Your task to perform on an android device: Open Wikipedia Image 0: 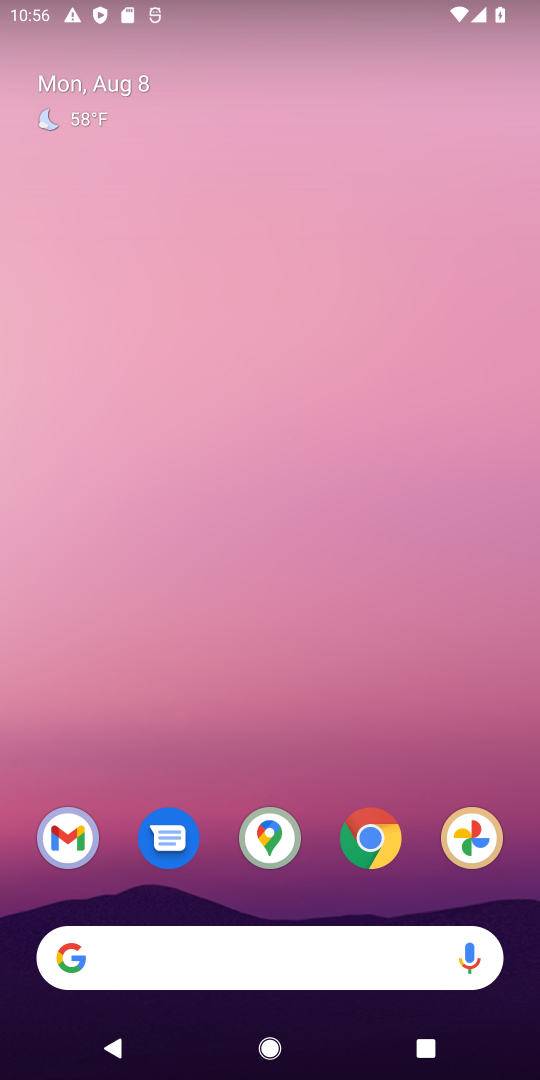
Step 0: press home button
Your task to perform on an android device: Open Wikipedia Image 1: 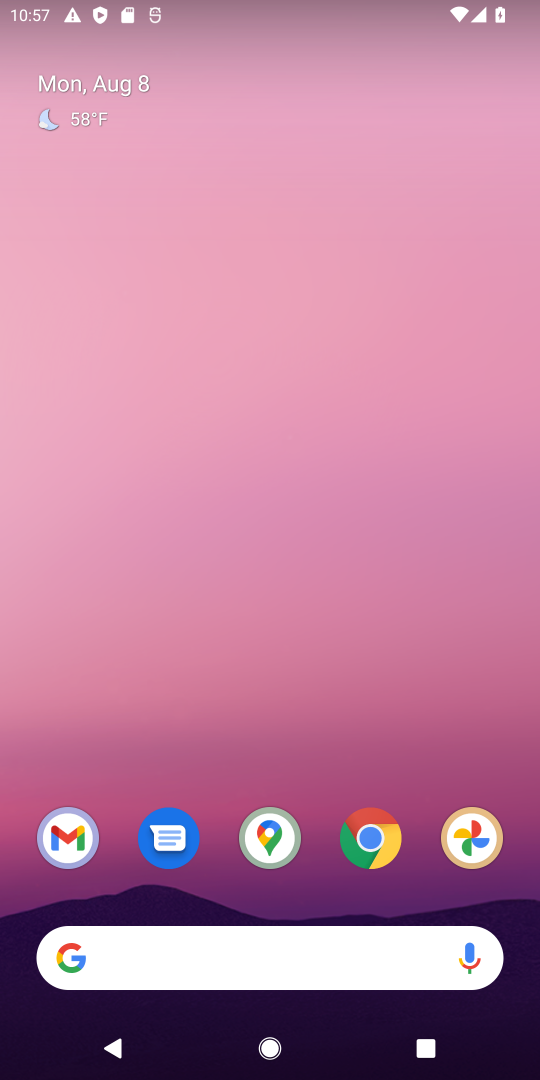
Step 1: click (71, 961)
Your task to perform on an android device: Open Wikipedia Image 2: 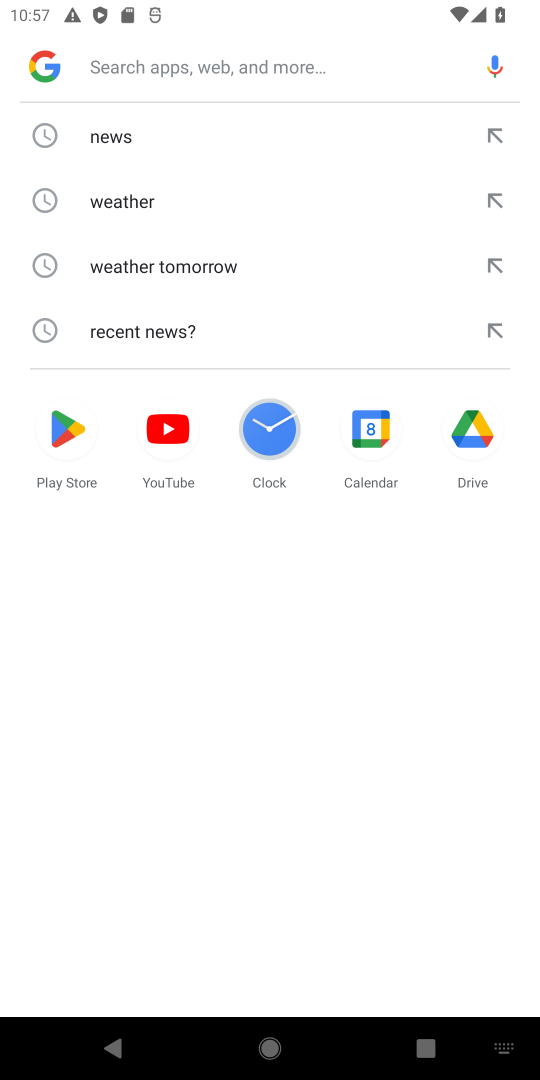
Step 2: type "Wikipedia"
Your task to perform on an android device: Open Wikipedia Image 3: 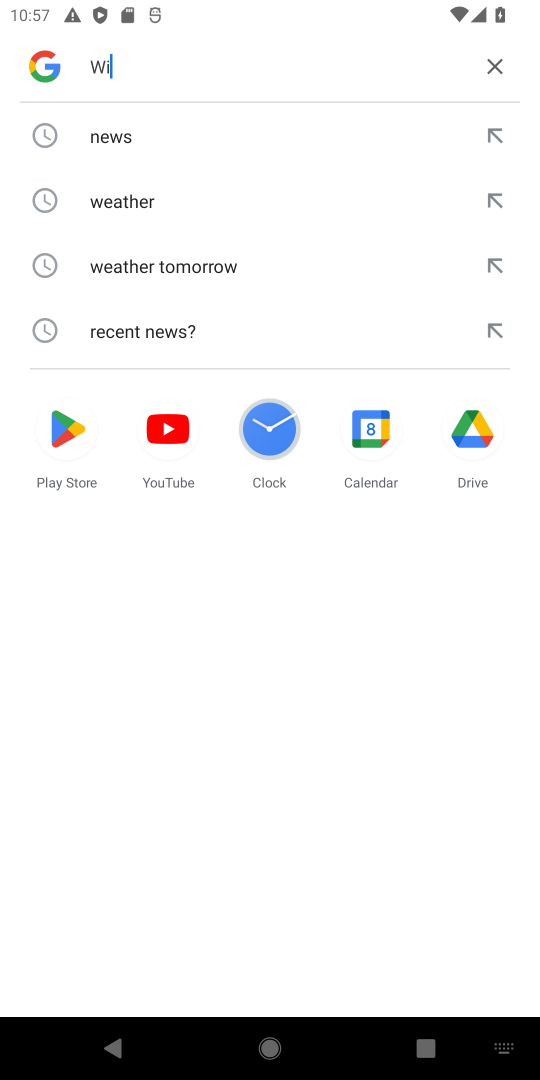
Step 3: press enter
Your task to perform on an android device: Open Wikipedia Image 4: 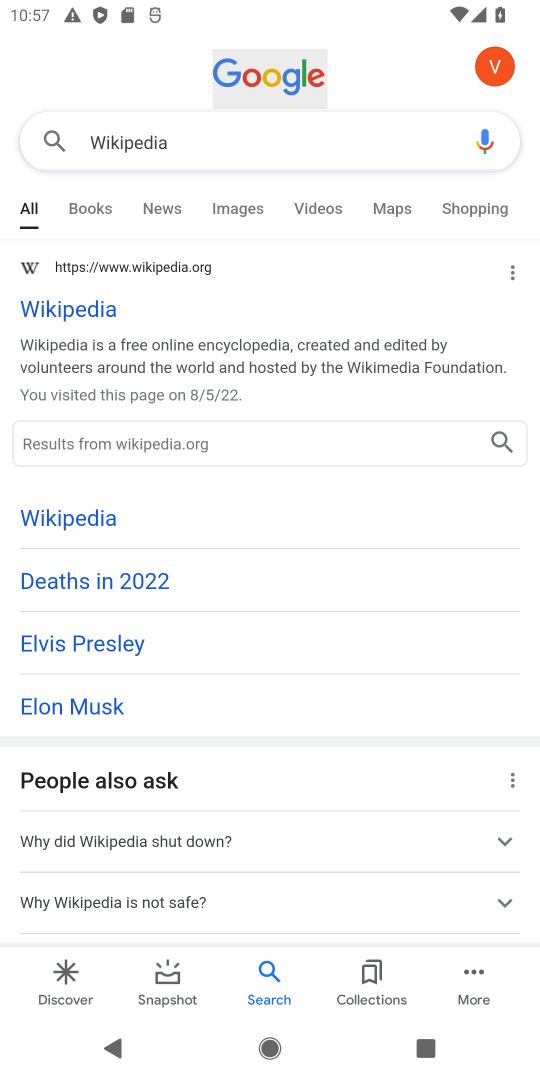
Step 4: click (72, 320)
Your task to perform on an android device: Open Wikipedia Image 5: 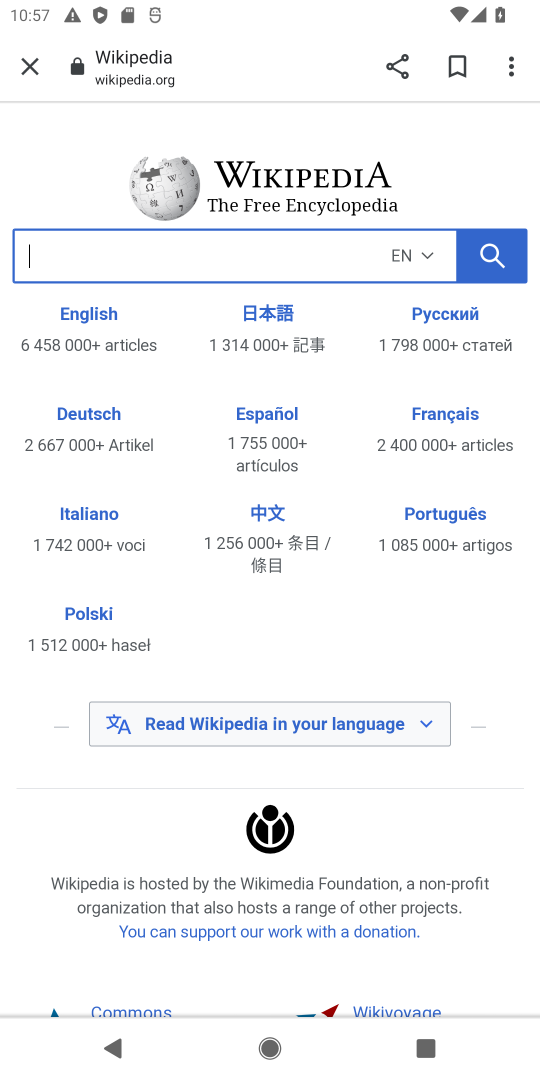
Step 5: task complete